Your task to perform on an android device: Go to CNN.com Image 0: 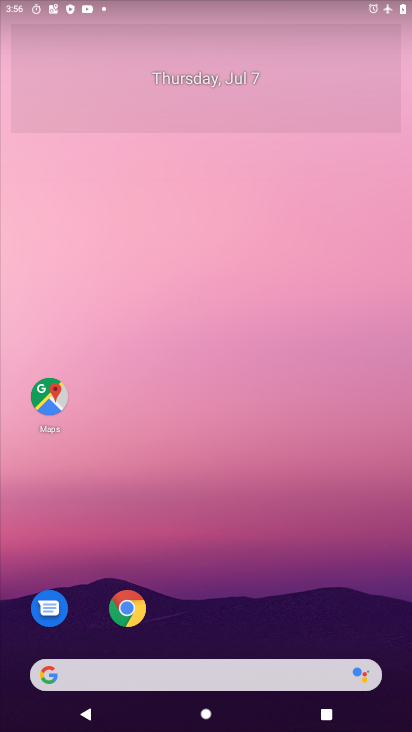
Step 0: click (134, 612)
Your task to perform on an android device: Go to CNN.com Image 1: 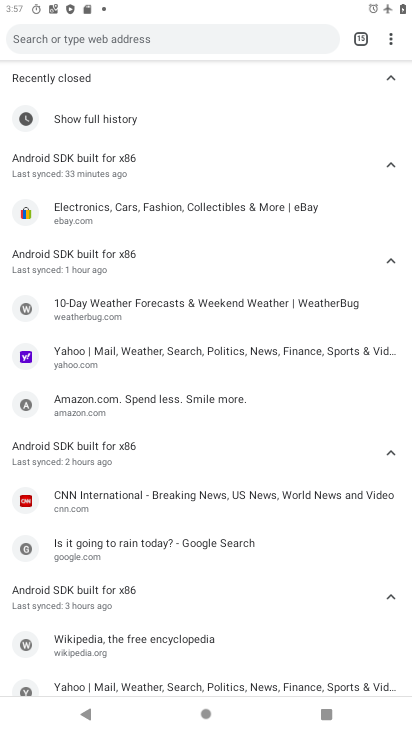
Step 1: click (391, 40)
Your task to perform on an android device: Go to CNN.com Image 2: 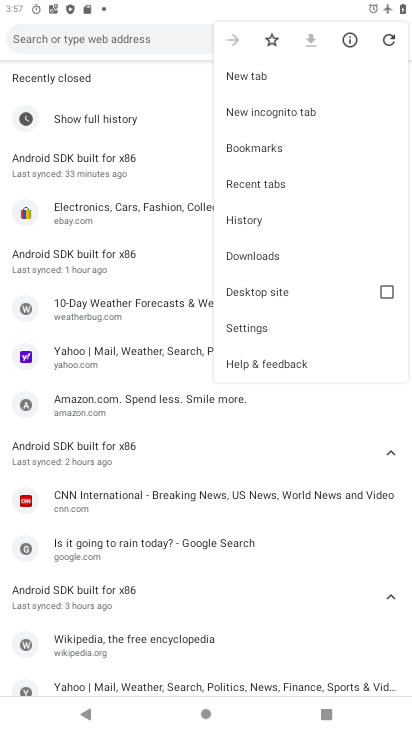
Step 2: click (247, 73)
Your task to perform on an android device: Go to CNN.com Image 3: 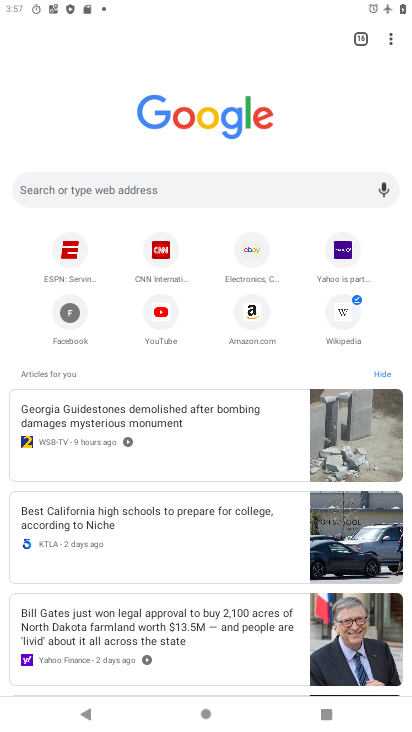
Step 3: click (156, 247)
Your task to perform on an android device: Go to CNN.com Image 4: 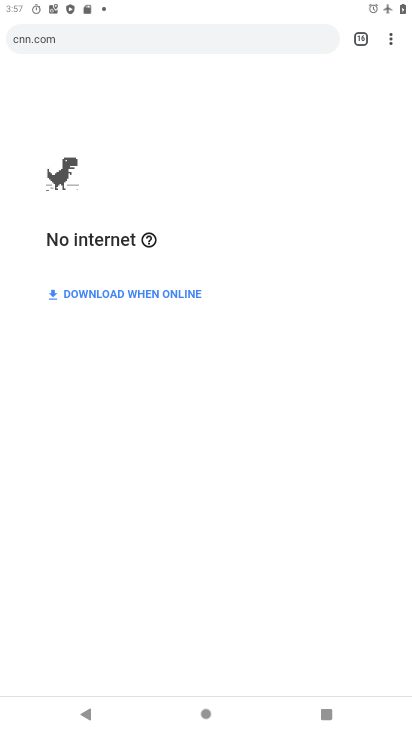
Step 4: task complete